Your task to perform on an android device: toggle sleep mode Image 0: 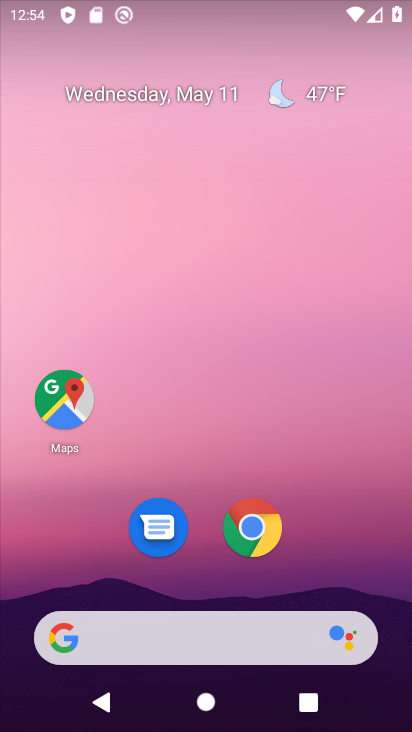
Step 0: click (248, 528)
Your task to perform on an android device: toggle sleep mode Image 1: 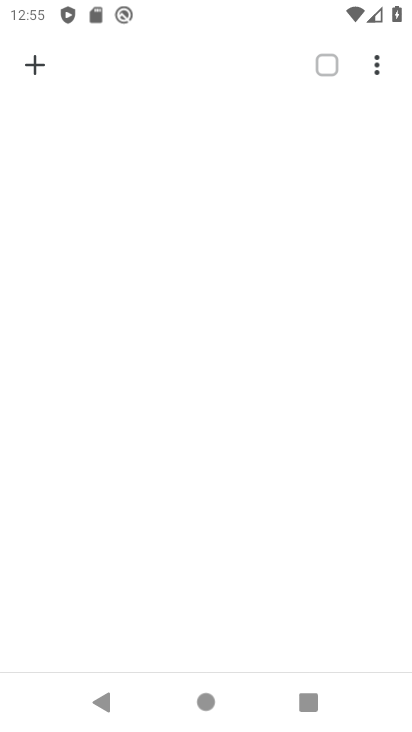
Step 1: click (377, 59)
Your task to perform on an android device: toggle sleep mode Image 2: 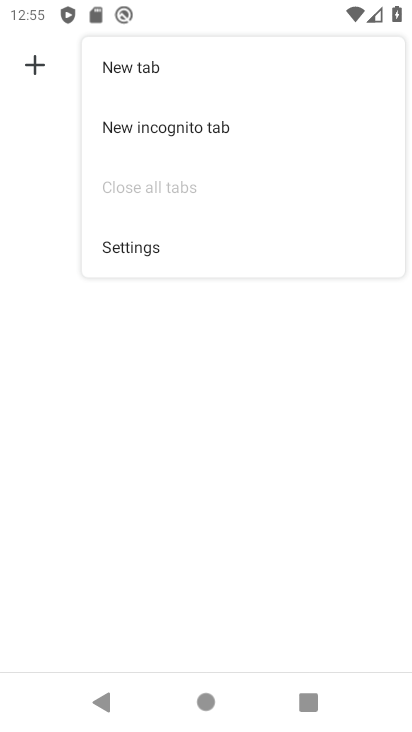
Step 2: click (269, 249)
Your task to perform on an android device: toggle sleep mode Image 3: 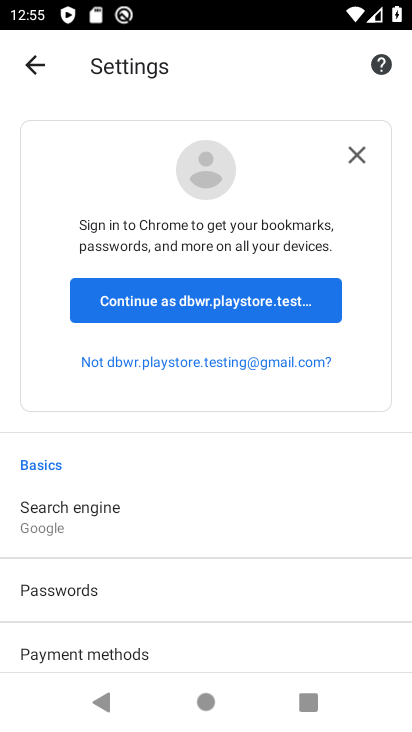
Step 3: drag from (85, 631) to (138, 272)
Your task to perform on an android device: toggle sleep mode Image 4: 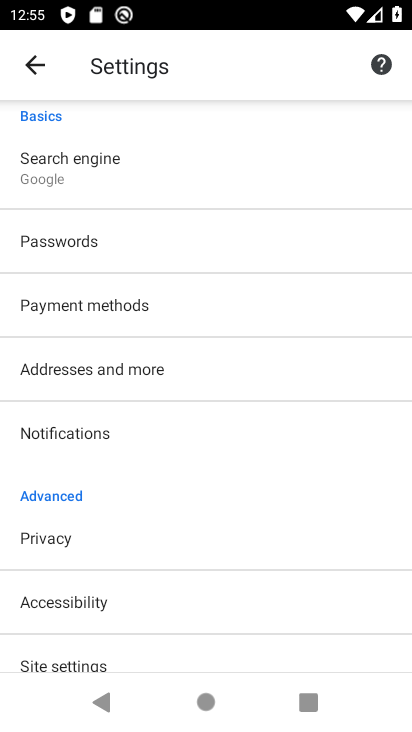
Step 4: click (91, 652)
Your task to perform on an android device: toggle sleep mode Image 5: 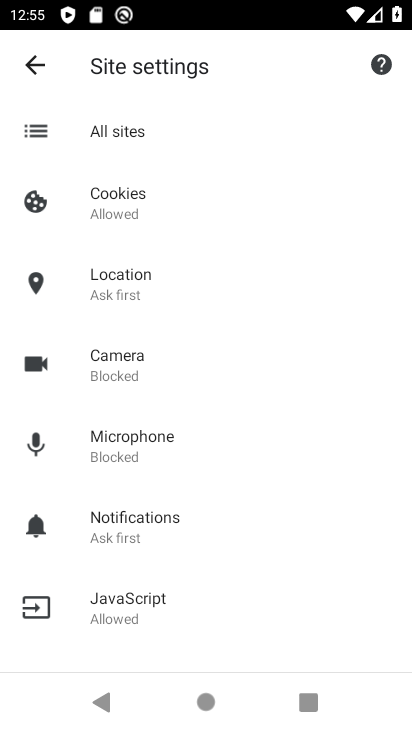
Step 5: task complete